Your task to perform on an android device: Show me popular games on the Play Store Image 0: 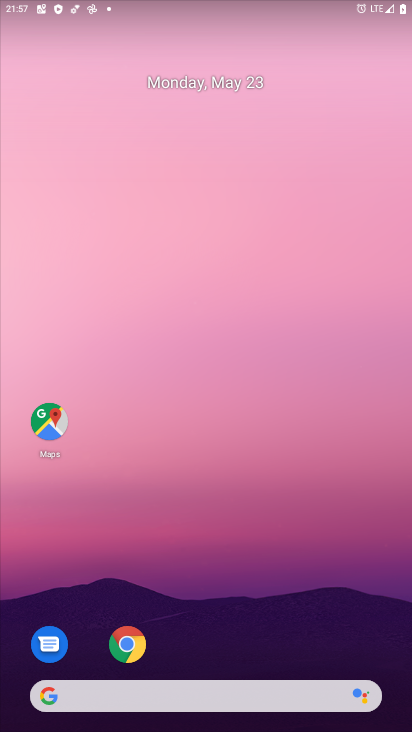
Step 0: drag from (235, 106) to (275, 11)
Your task to perform on an android device: Show me popular games on the Play Store Image 1: 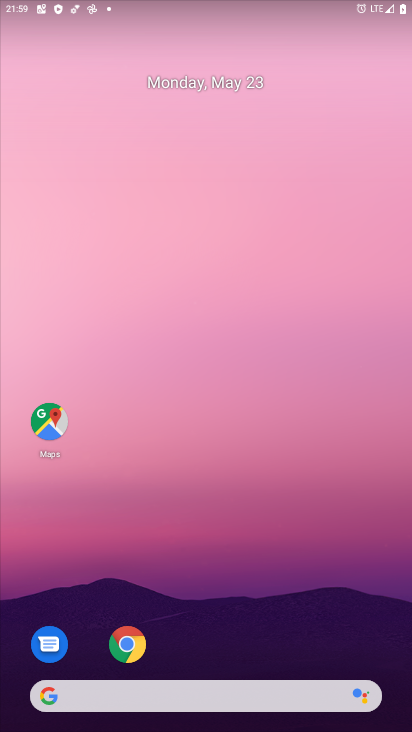
Step 1: drag from (206, 695) to (151, 137)
Your task to perform on an android device: Show me popular games on the Play Store Image 2: 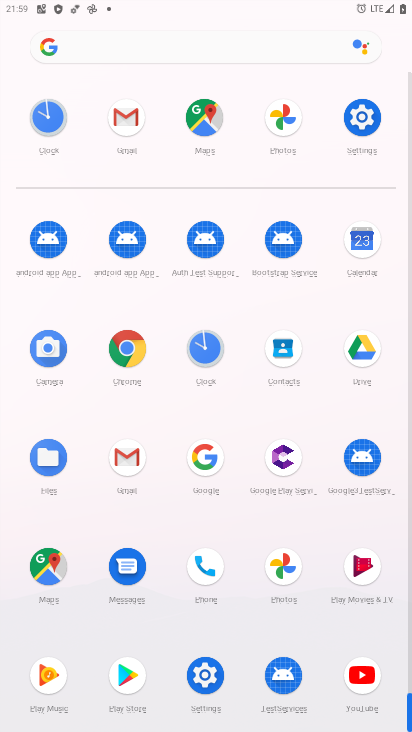
Step 2: click (119, 678)
Your task to perform on an android device: Show me popular games on the Play Store Image 3: 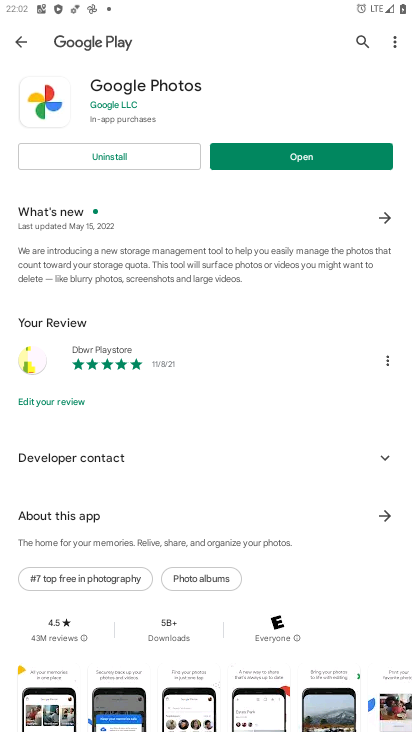
Step 3: click (17, 38)
Your task to perform on an android device: Show me popular games on the Play Store Image 4: 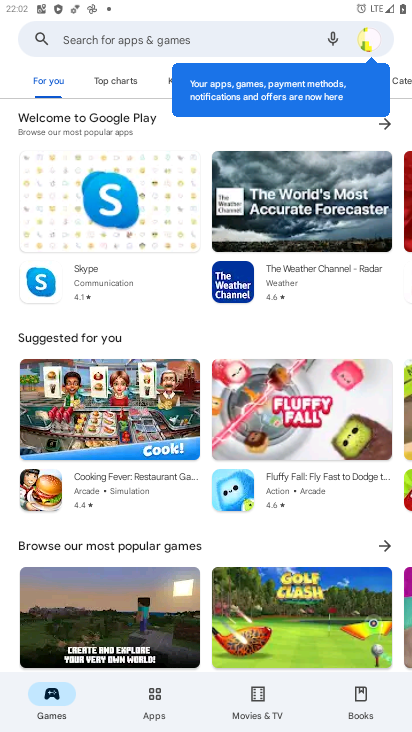
Step 4: task complete